Your task to perform on an android device: turn off sleep mode Image 0: 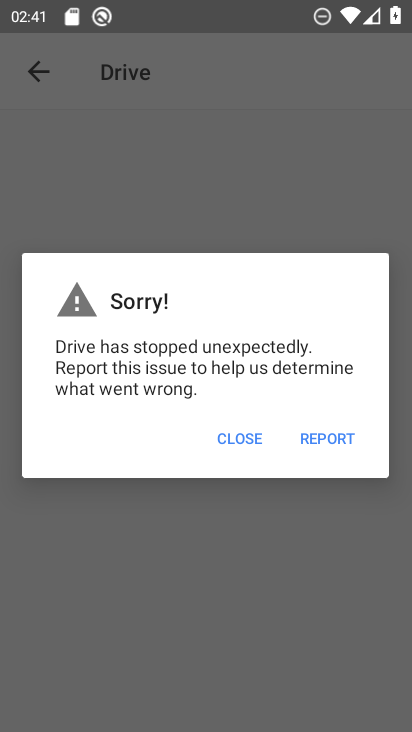
Step 0: press home button
Your task to perform on an android device: turn off sleep mode Image 1: 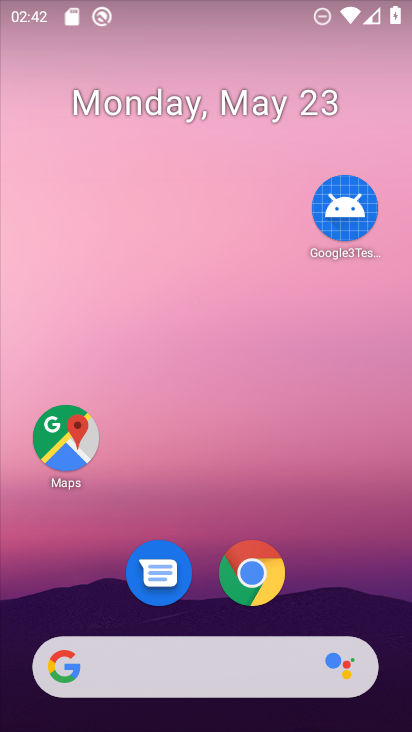
Step 1: drag from (304, 323) to (275, 75)
Your task to perform on an android device: turn off sleep mode Image 2: 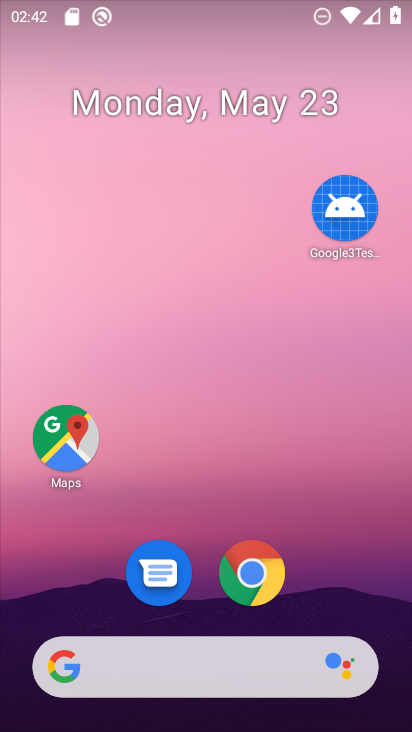
Step 2: drag from (353, 552) to (289, 162)
Your task to perform on an android device: turn off sleep mode Image 3: 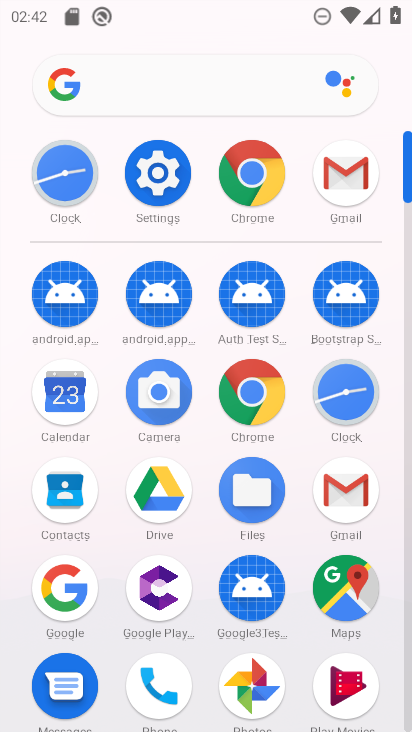
Step 3: click (177, 175)
Your task to perform on an android device: turn off sleep mode Image 4: 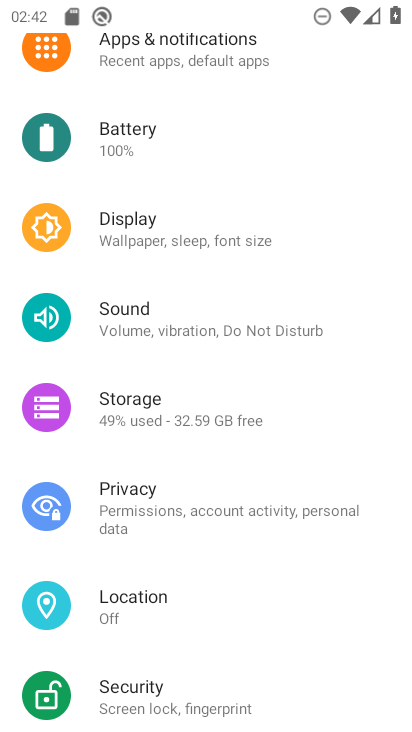
Step 4: click (195, 245)
Your task to perform on an android device: turn off sleep mode Image 5: 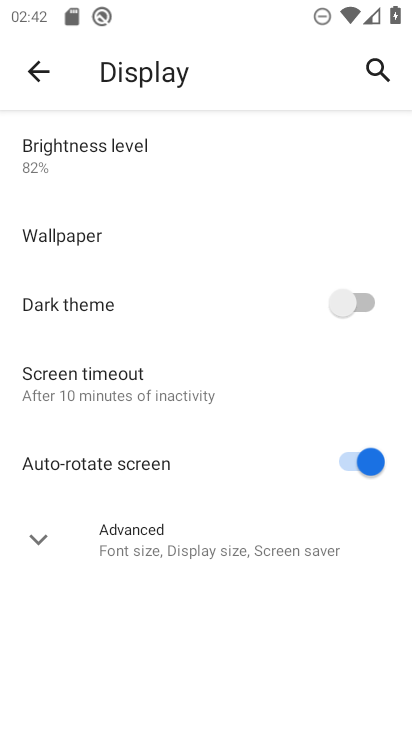
Step 5: click (166, 391)
Your task to perform on an android device: turn off sleep mode Image 6: 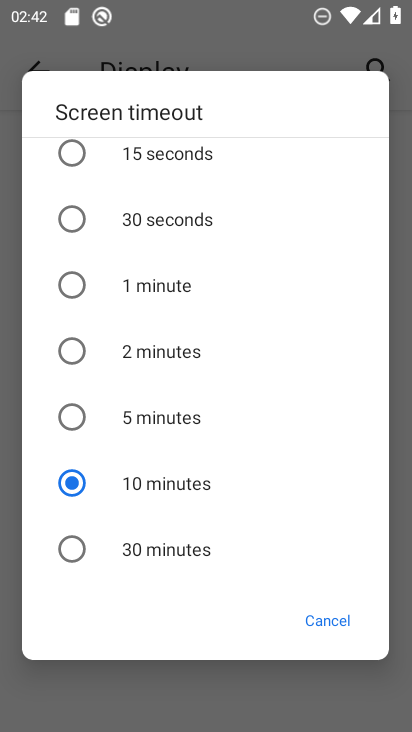
Step 6: task complete